Your task to perform on an android device: set an alarm Image 0: 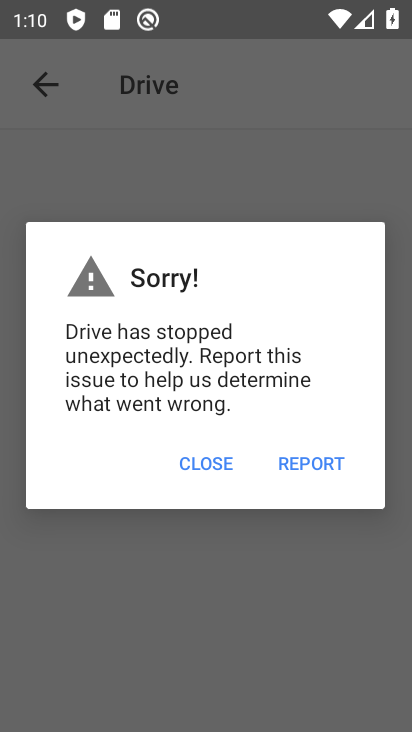
Step 0: press home button
Your task to perform on an android device: set an alarm Image 1: 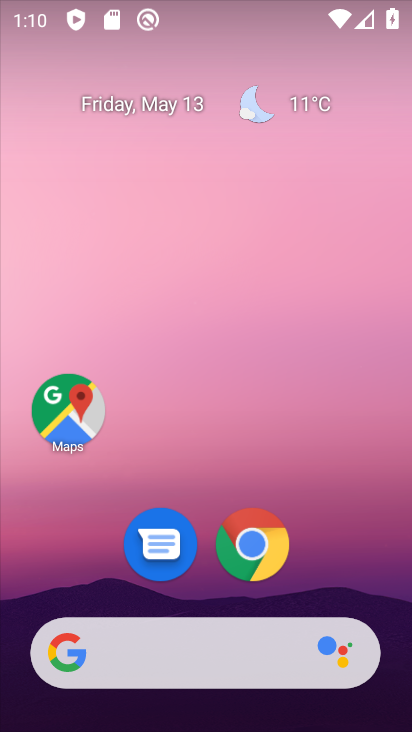
Step 1: drag from (194, 503) to (223, 244)
Your task to perform on an android device: set an alarm Image 2: 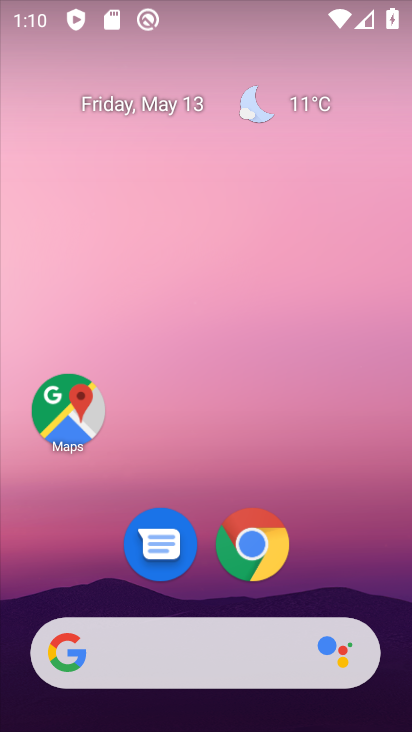
Step 2: drag from (212, 417) to (238, 225)
Your task to perform on an android device: set an alarm Image 3: 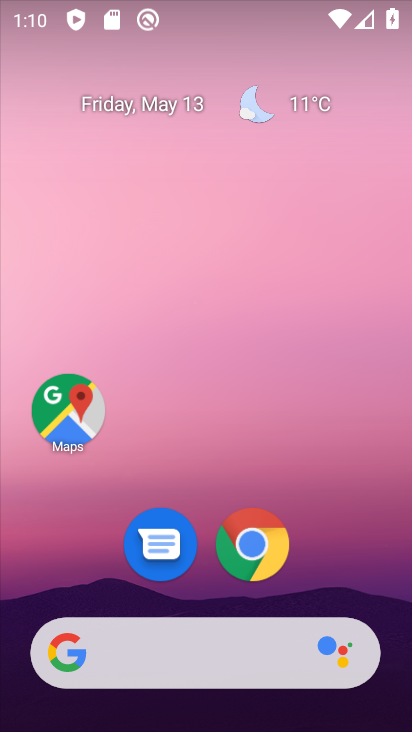
Step 3: drag from (93, 556) to (140, 180)
Your task to perform on an android device: set an alarm Image 4: 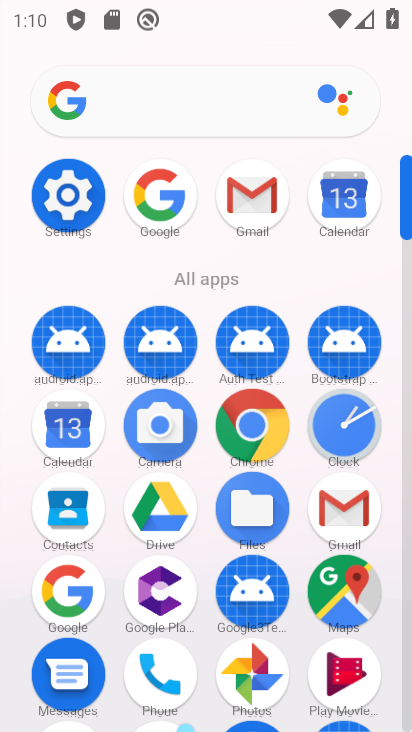
Step 4: click (344, 433)
Your task to perform on an android device: set an alarm Image 5: 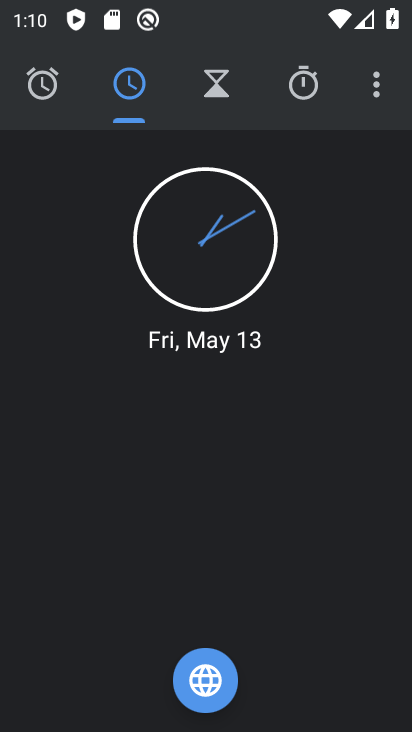
Step 5: click (54, 90)
Your task to perform on an android device: set an alarm Image 6: 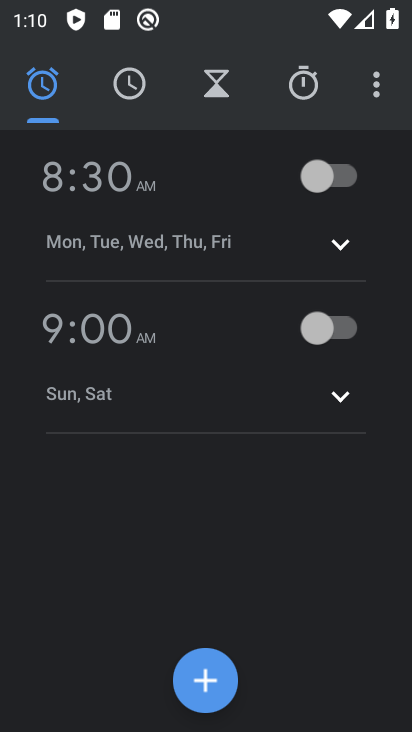
Step 6: click (339, 187)
Your task to perform on an android device: set an alarm Image 7: 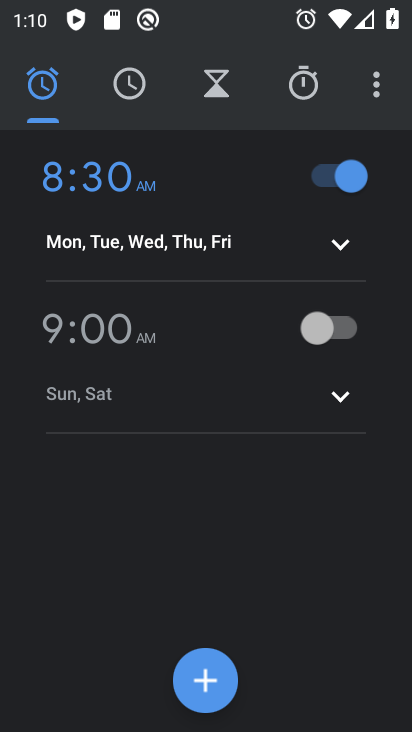
Step 7: task complete